Your task to perform on an android device: refresh tabs in the chrome app Image 0: 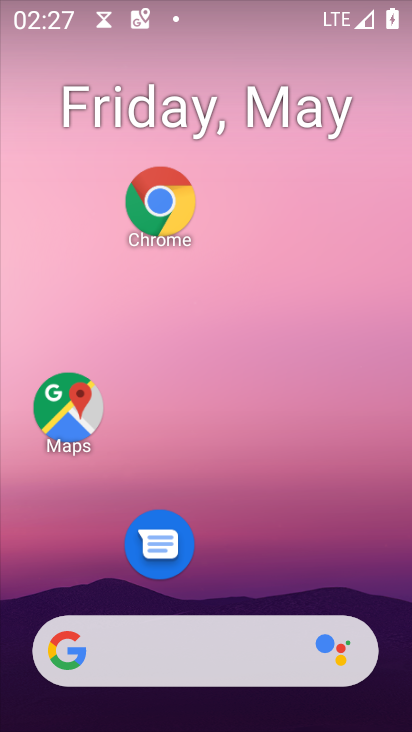
Step 0: drag from (332, 606) to (323, 251)
Your task to perform on an android device: refresh tabs in the chrome app Image 1: 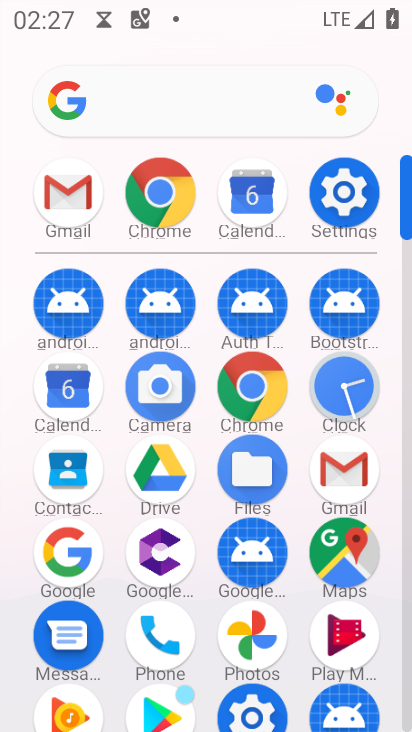
Step 1: click (241, 392)
Your task to perform on an android device: refresh tabs in the chrome app Image 2: 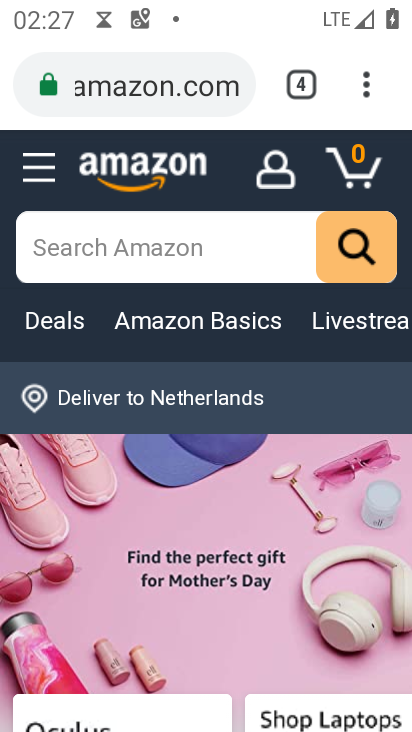
Step 2: click (356, 87)
Your task to perform on an android device: refresh tabs in the chrome app Image 3: 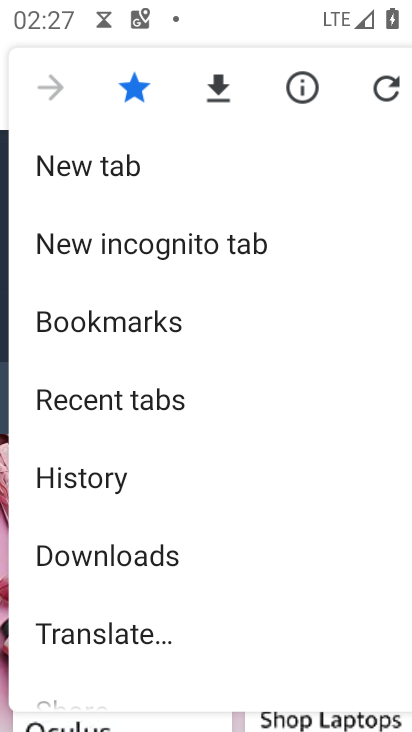
Step 3: click (375, 84)
Your task to perform on an android device: refresh tabs in the chrome app Image 4: 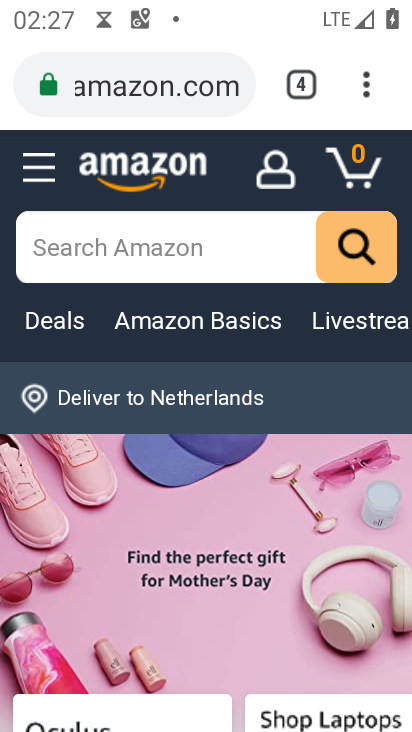
Step 4: task complete